Your task to perform on an android device: change the clock display to analog Image 0: 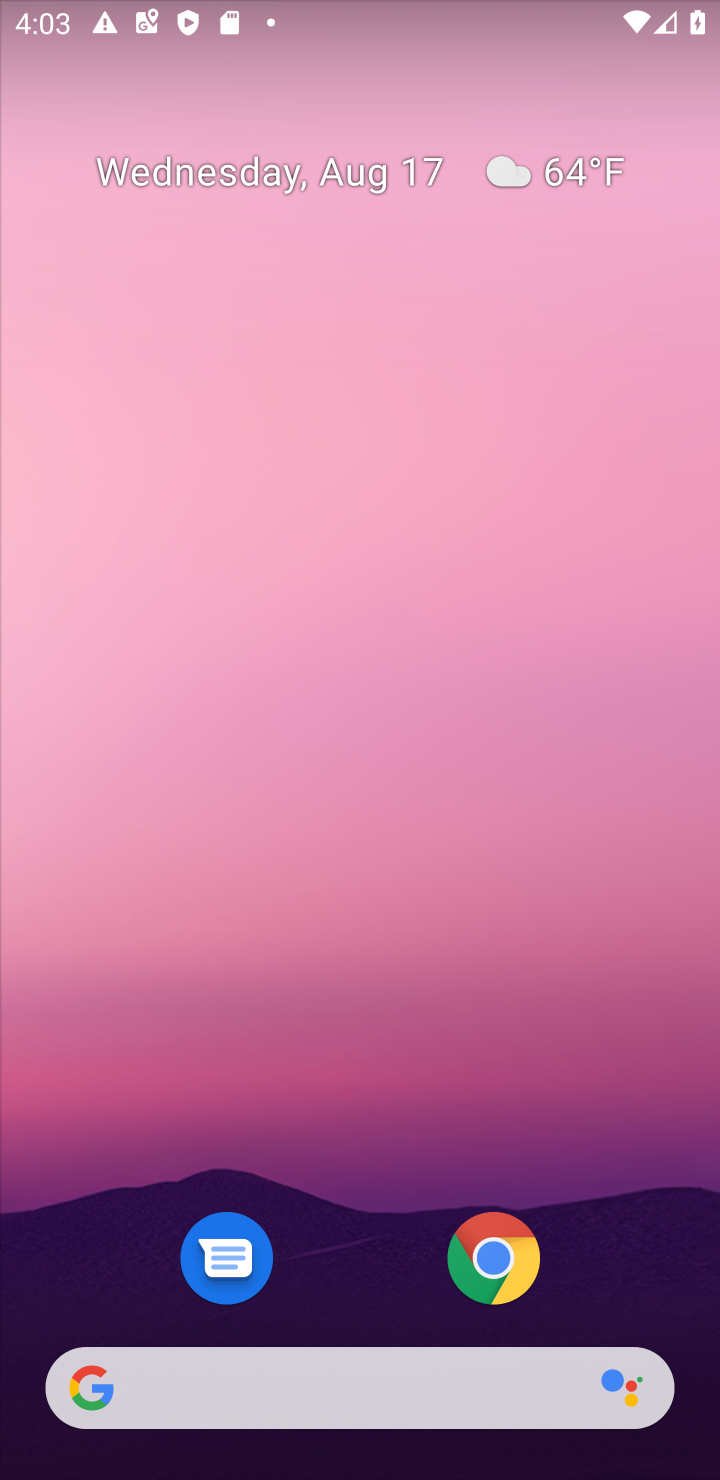
Step 0: press home button
Your task to perform on an android device: change the clock display to analog Image 1: 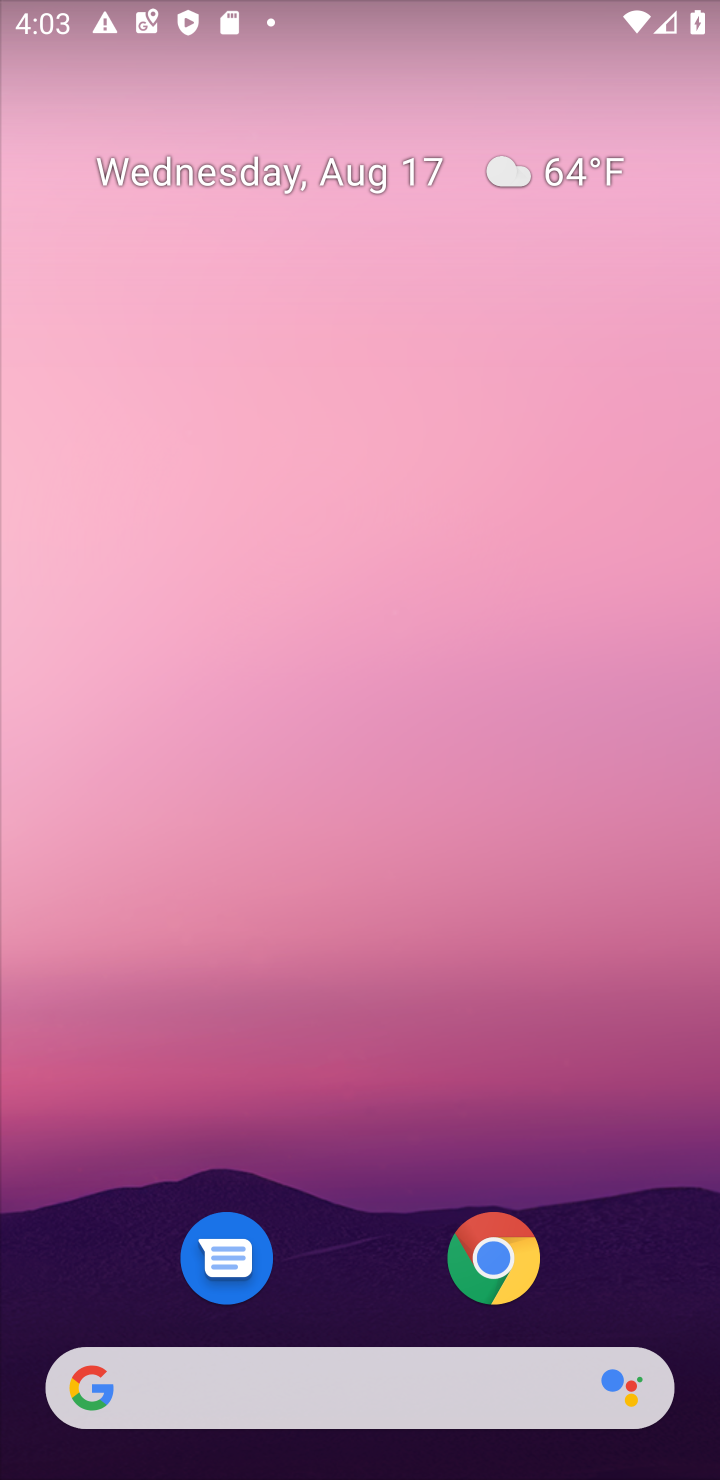
Step 1: drag from (608, 1117) to (589, 480)
Your task to perform on an android device: change the clock display to analog Image 2: 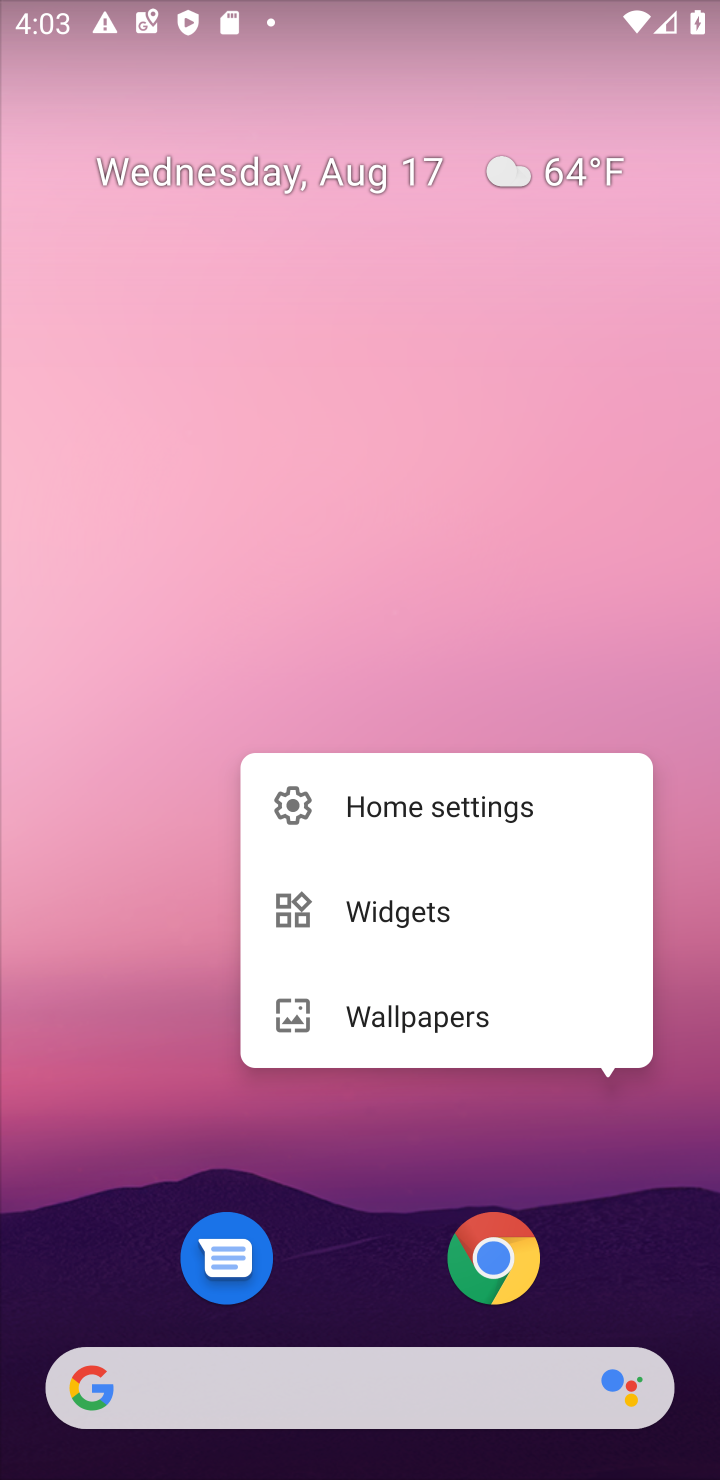
Step 2: click (616, 645)
Your task to perform on an android device: change the clock display to analog Image 3: 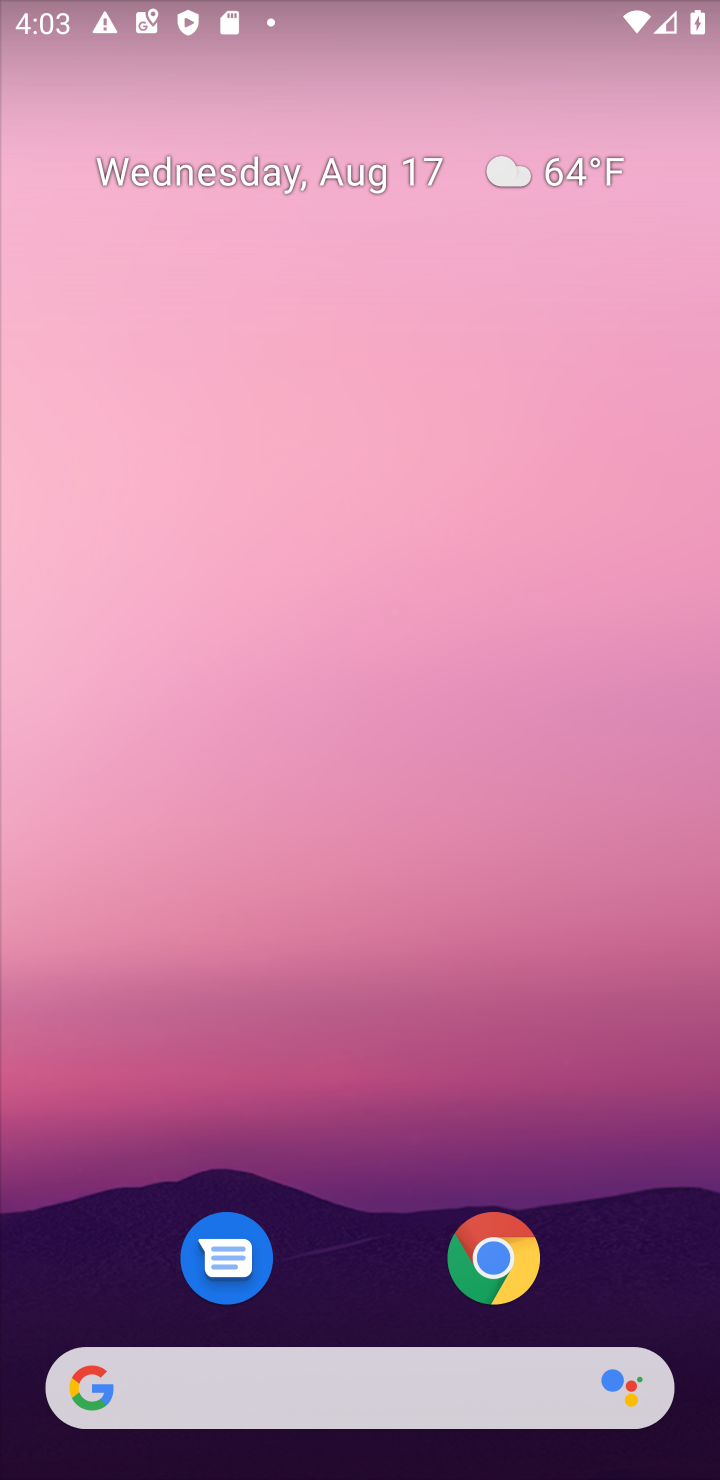
Step 3: drag from (500, 1148) to (475, 227)
Your task to perform on an android device: change the clock display to analog Image 4: 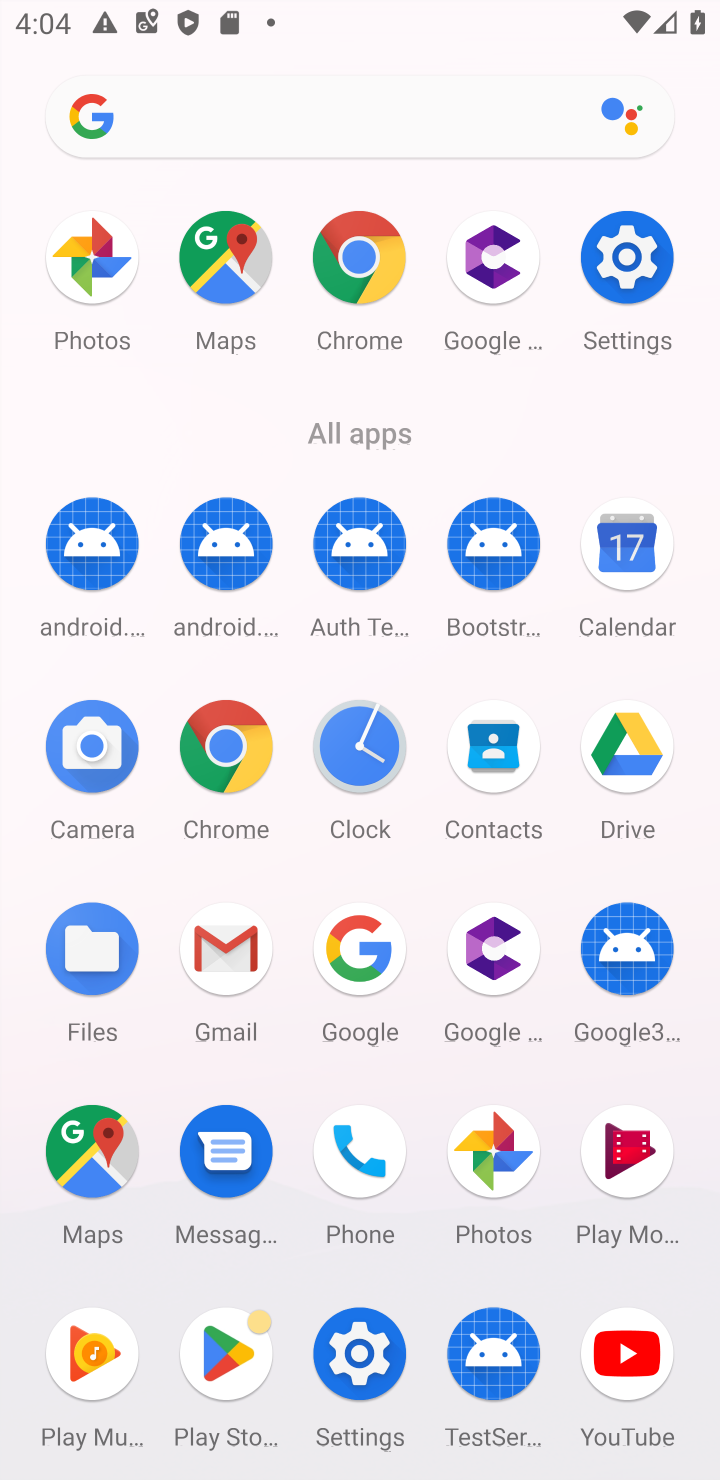
Step 4: click (362, 722)
Your task to perform on an android device: change the clock display to analog Image 5: 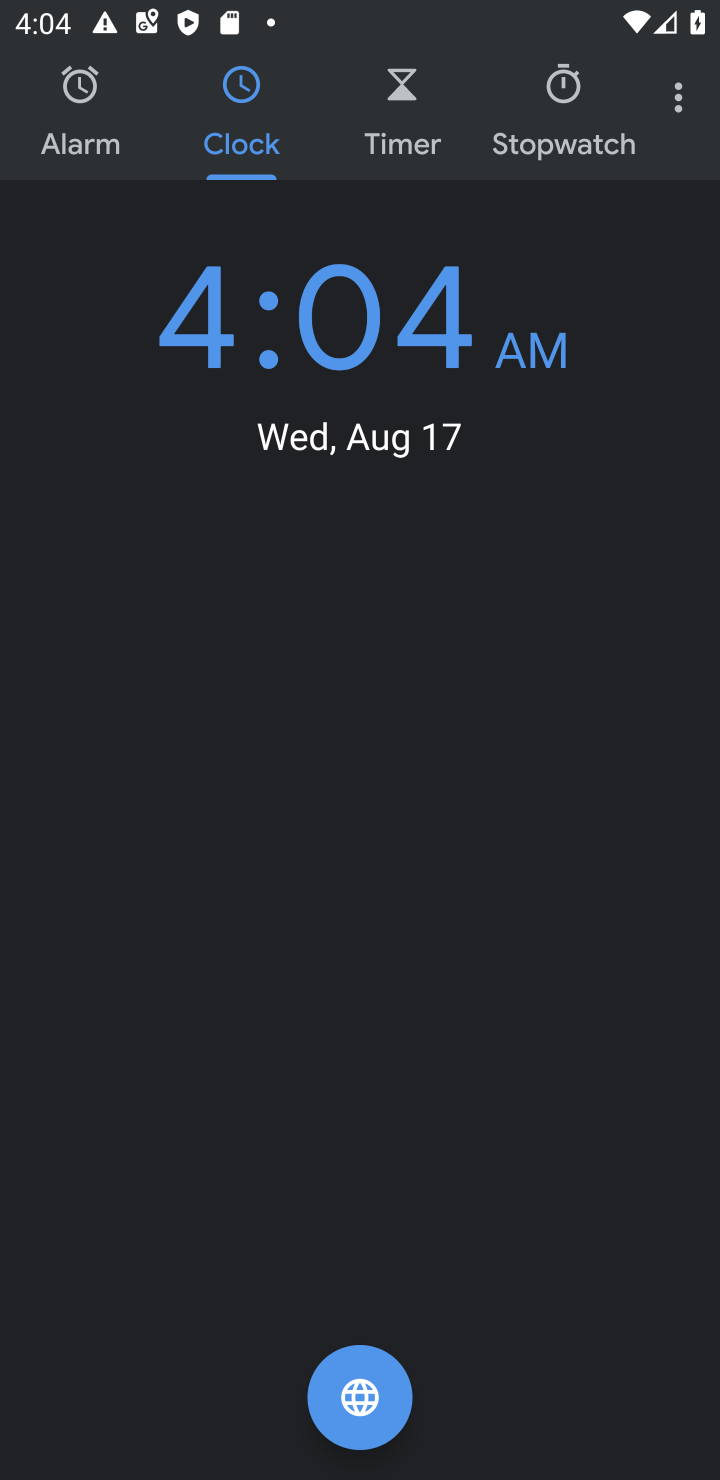
Step 5: click (684, 119)
Your task to perform on an android device: change the clock display to analog Image 6: 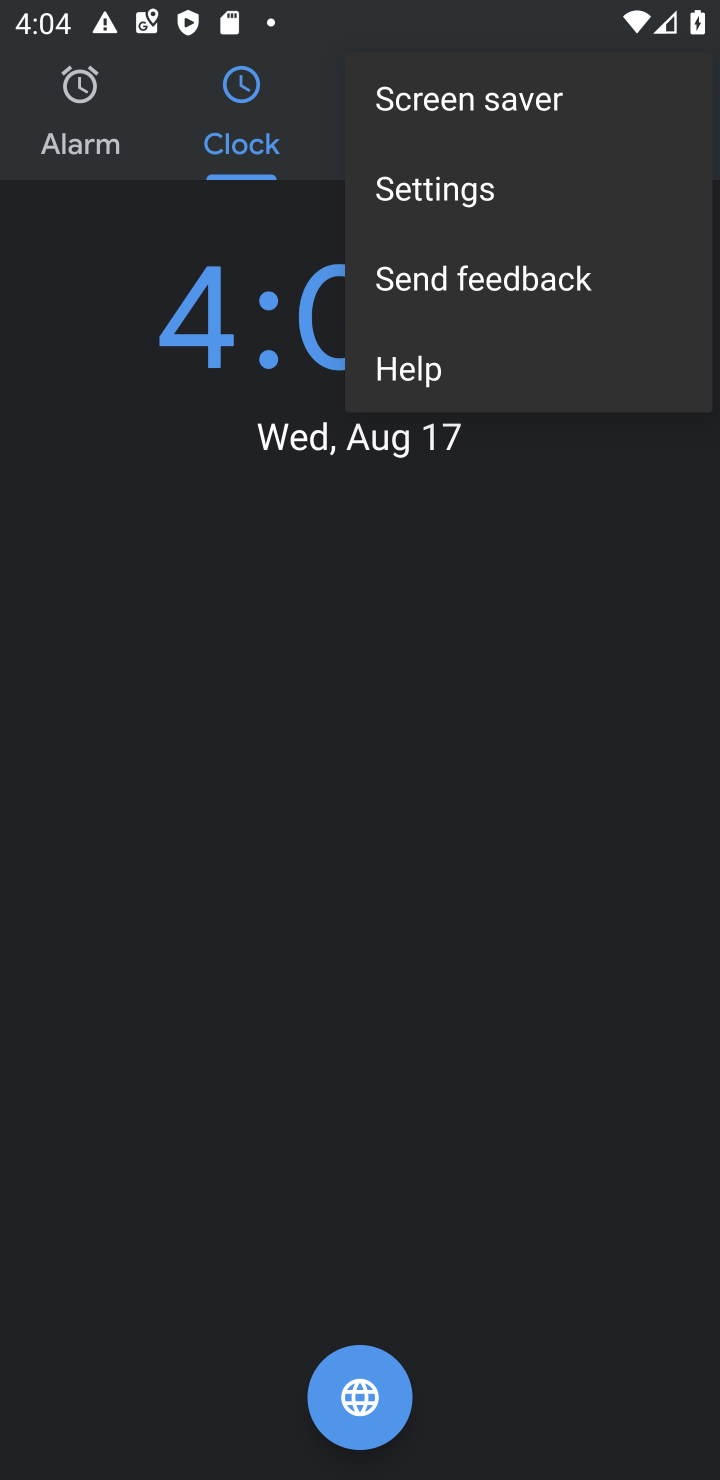
Step 6: click (504, 214)
Your task to perform on an android device: change the clock display to analog Image 7: 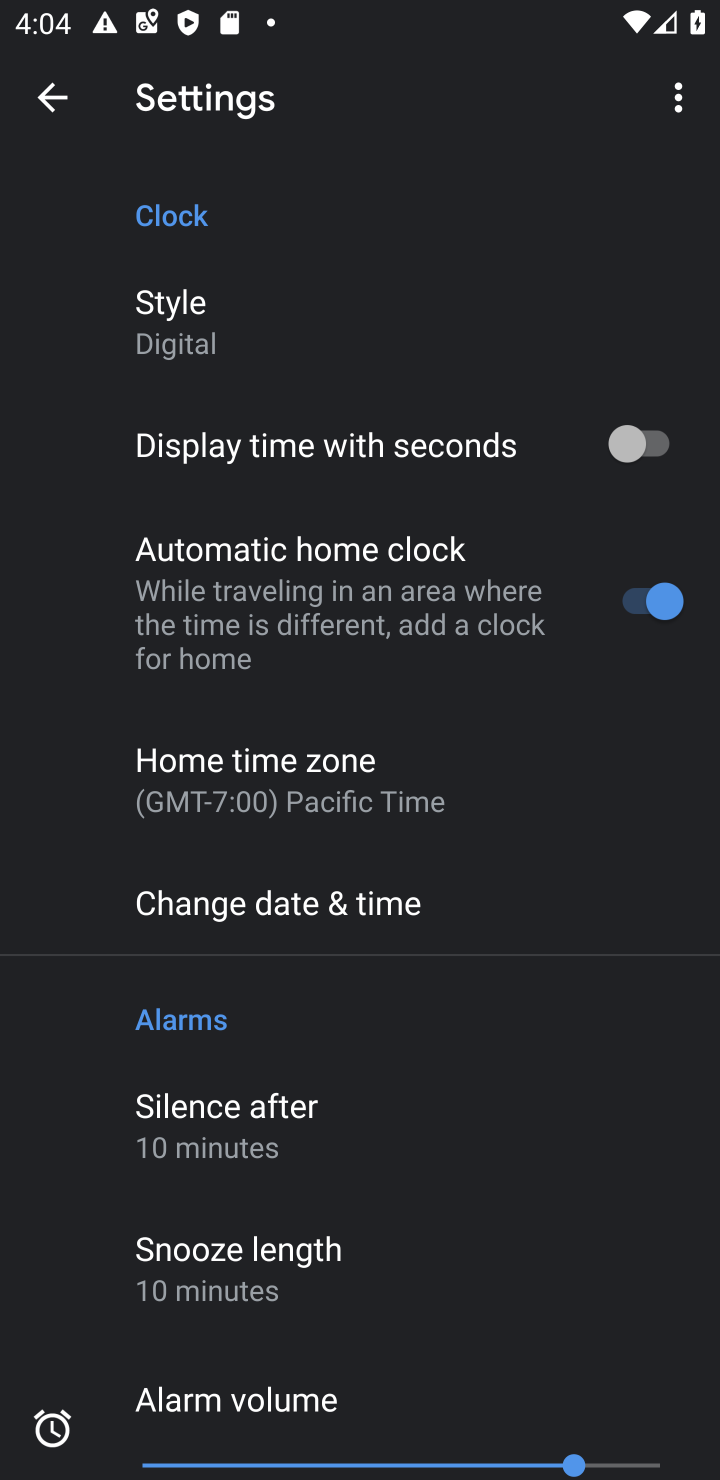
Step 7: click (473, 298)
Your task to perform on an android device: change the clock display to analog Image 8: 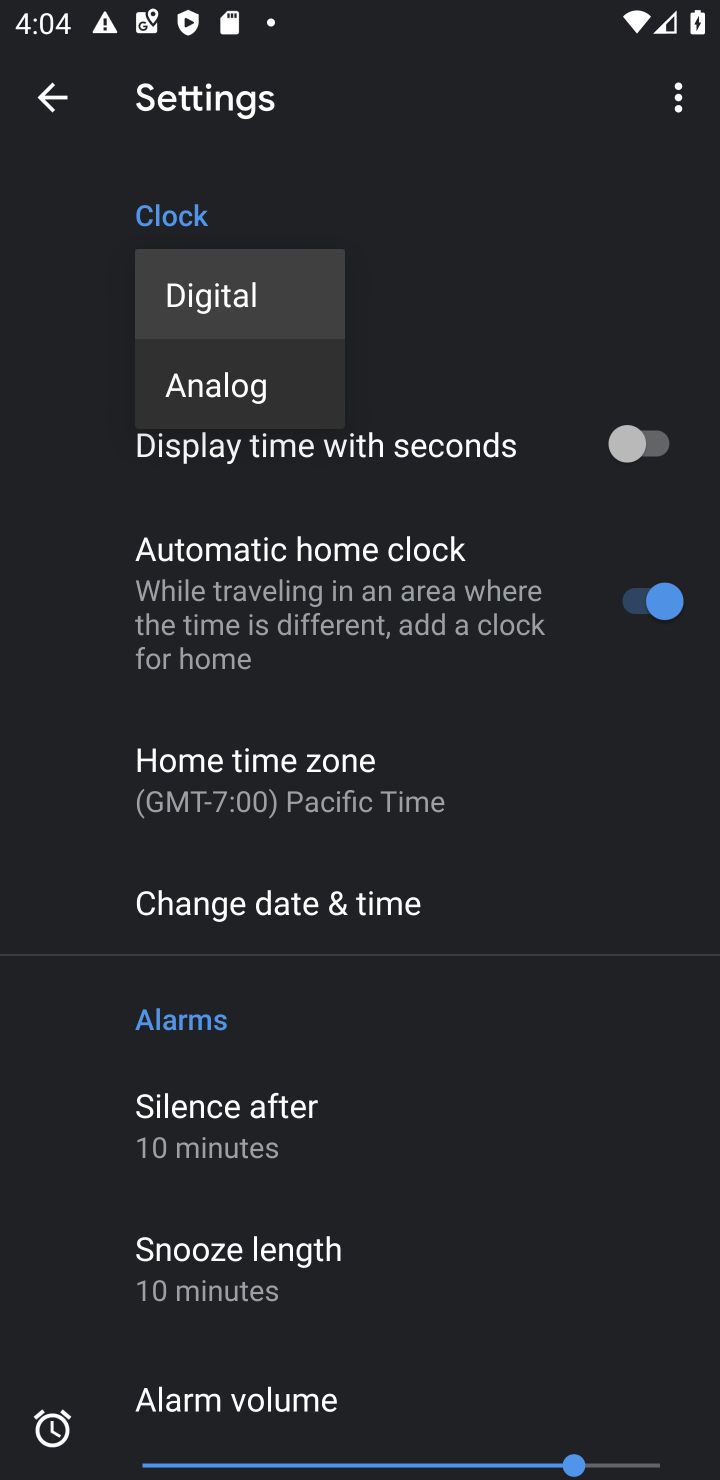
Step 8: click (259, 389)
Your task to perform on an android device: change the clock display to analog Image 9: 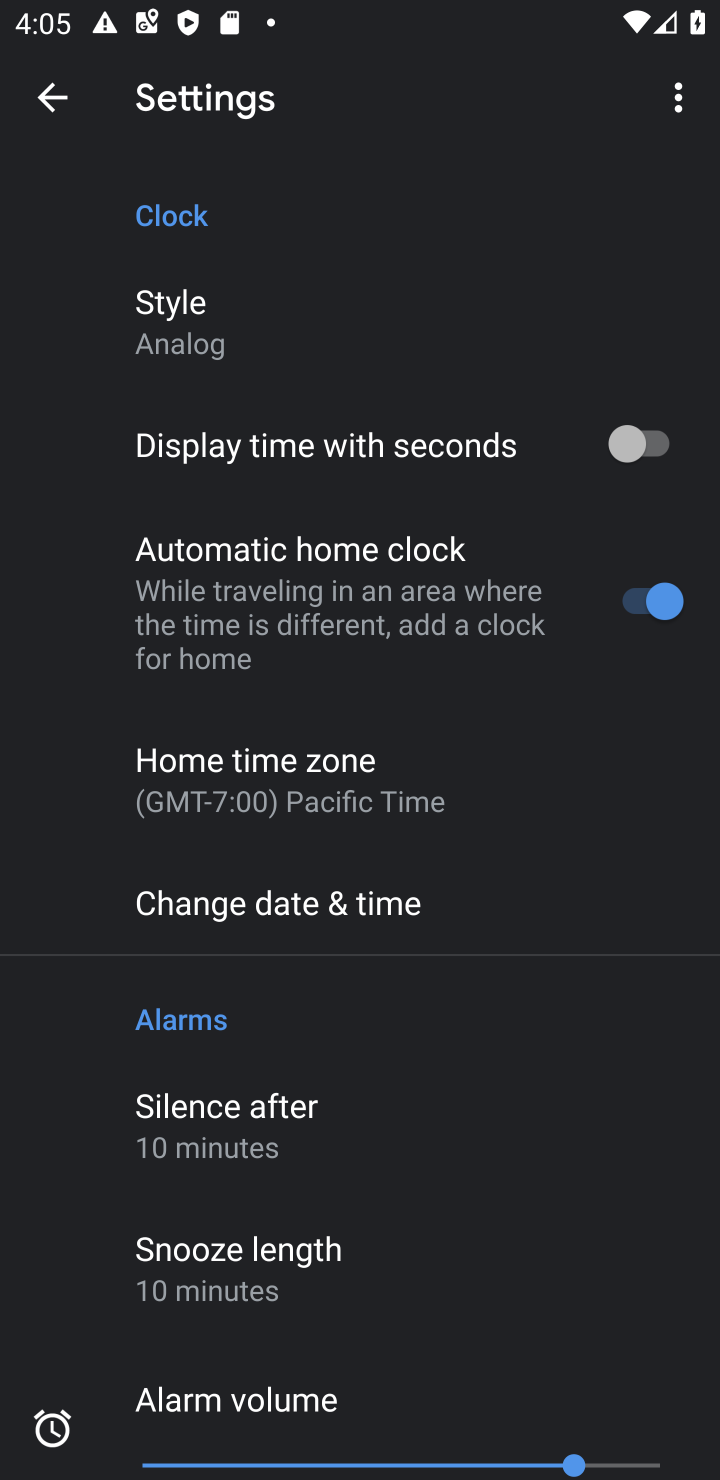
Step 9: task complete